Your task to perform on an android device: Search for vegetarian restaurants on Maps Image 0: 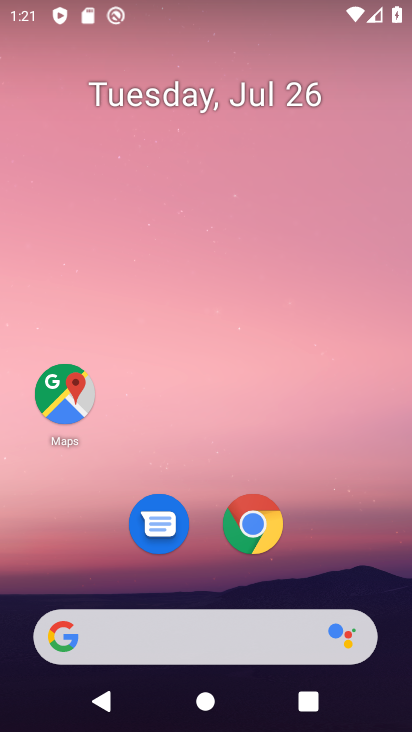
Step 0: press home button
Your task to perform on an android device: Search for vegetarian restaurants on Maps Image 1: 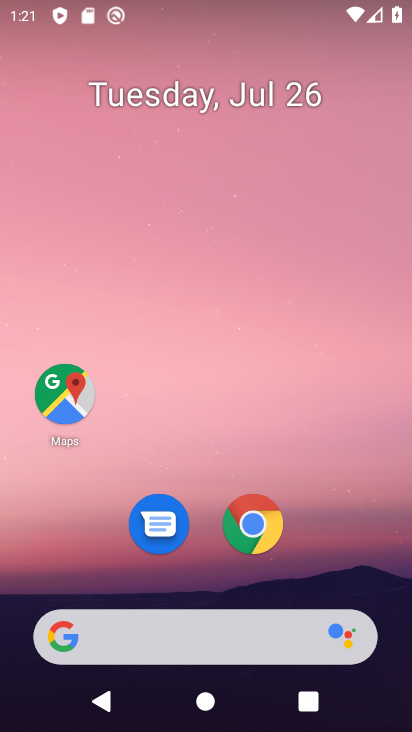
Step 1: click (61, 397)
Your task to perform on an android device: Search for vegetarian restaurants on Maps Image 2: 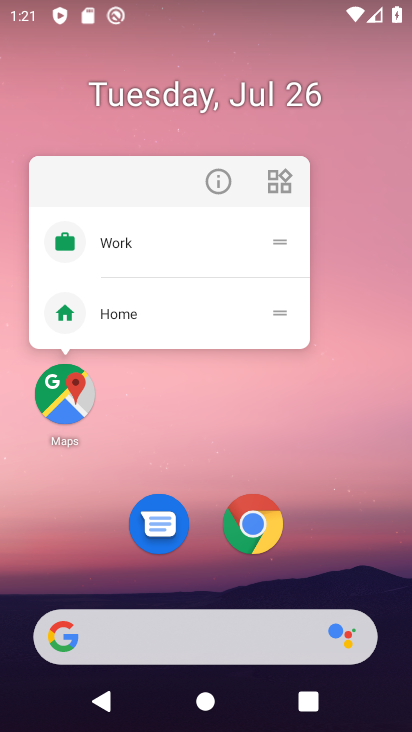
Step 2: click (61, 397)
Your task to perform on an android device: Search for vegetarian restaurants on Maps Image 3: 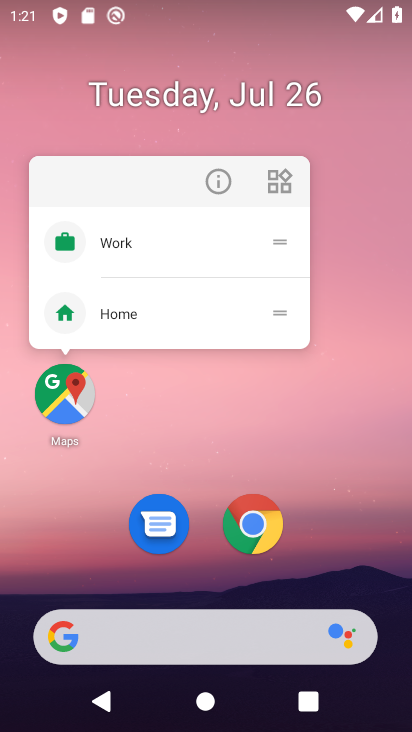
Step 3: click (61, 399)
Your task to perform on an android device: Search for vegetarian restaurants on Maps Image 4: 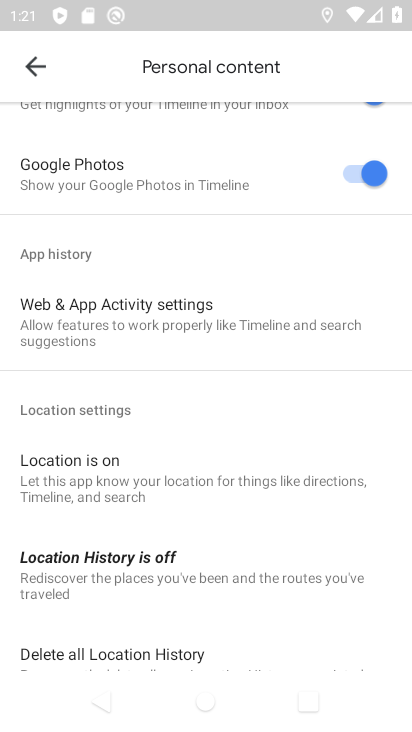
Step 4: click (33, 67)
Your task to perform on an android device: Search for vegetarian restaurants on Maps Image 5: 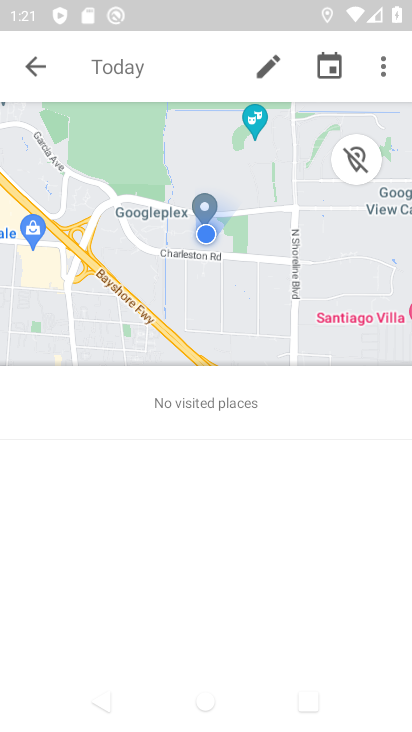
Step 5: click (33, 67)
Your task to perform on an android device: Search for vegetarian restaurants on Maps Image 6: 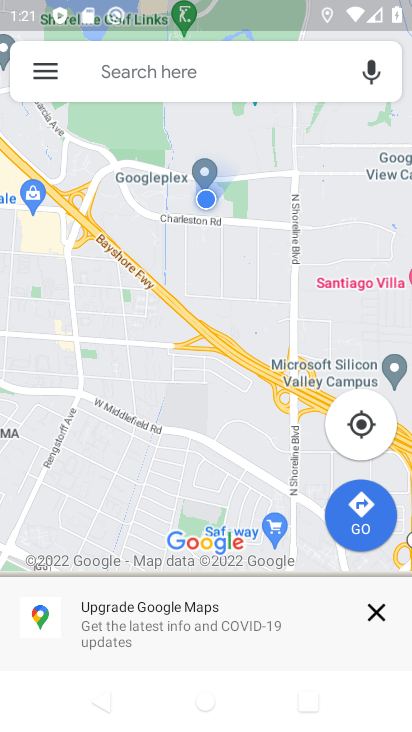
Step 6: click (164, 67)
Your task to perform on an android device: Search for vegetarian restaurants on Maps Image 7: 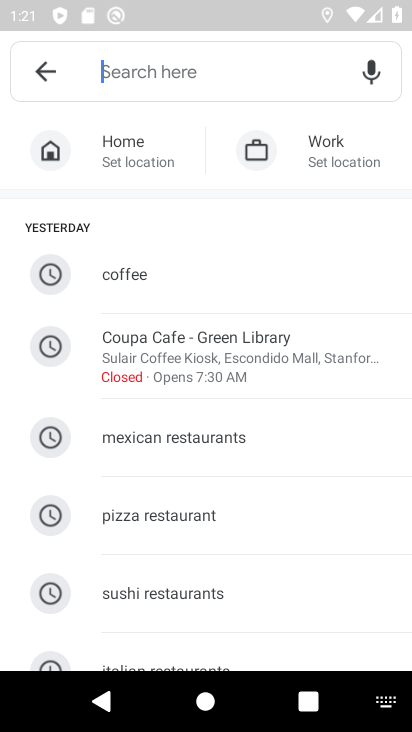
Step 7: drag from (205, 561) to (308, 142)
Your task to perform on an android device: Search for vegetarian restaurants on Maps Image 8: 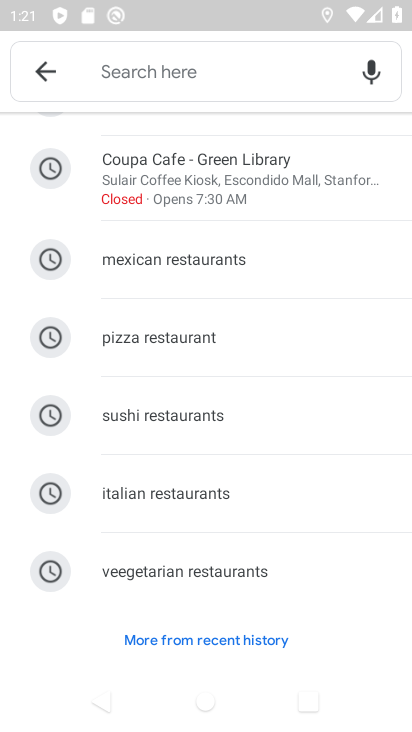
Step 8: click (199, 574)
Your task to perform on an android device: Search for vegetarian restaurants on Maps Image 9: 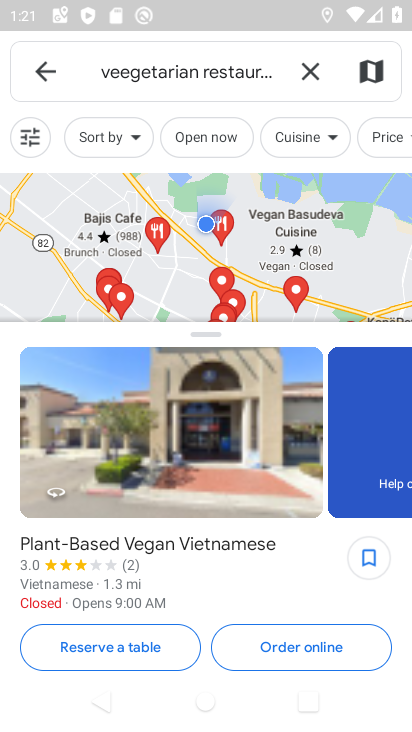
Step 9: task complete